Your task to perform on an android device: set the timer Image 0: 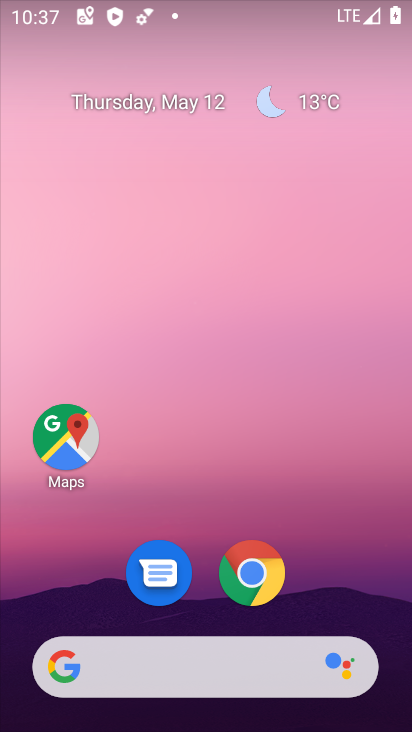
Step 0: drag from (223, 618) to (99, 3)
Your task to perform on an android device: set the timer Image 1: 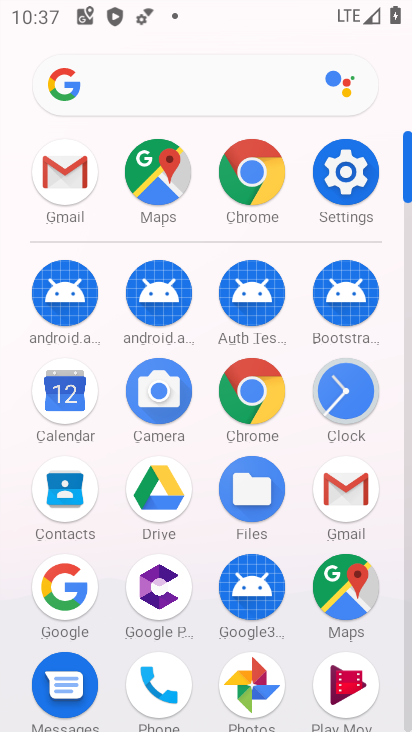
Step 1: click (336, 396)
Your task to perform on an android device: set the timer Image 2: 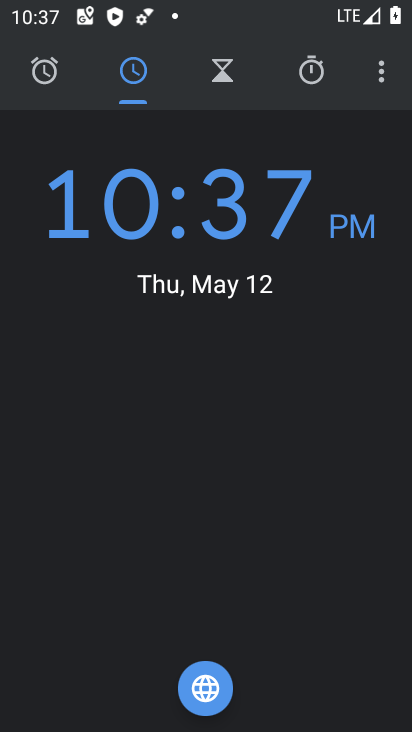
Step 2: click (239, 72)
Your task to perform on an android device: set the timer Image 3: 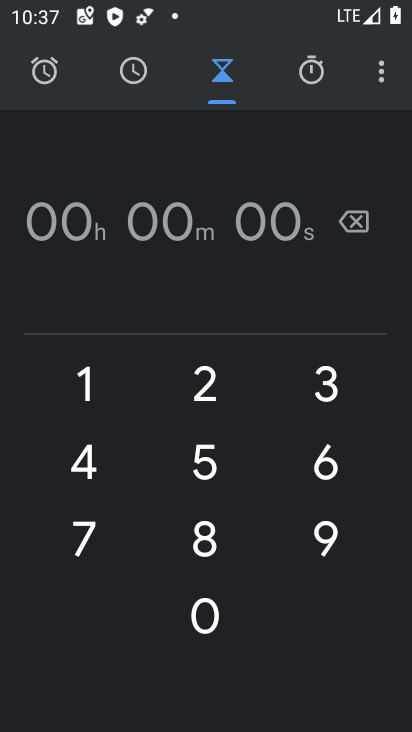
Step 3: click (226, 364)
Your task to perform on an android device: set the timer Image 4: 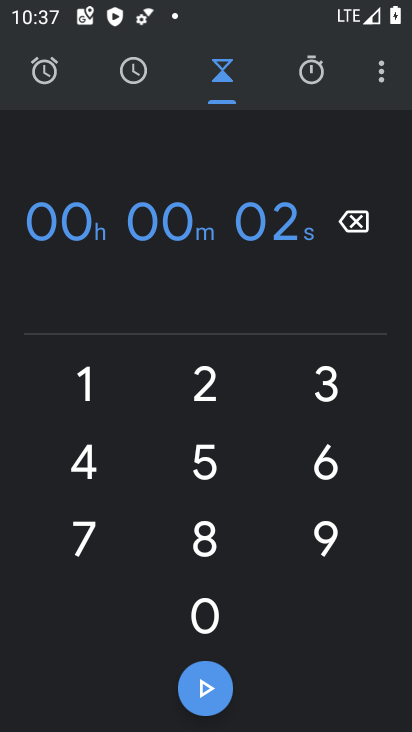
Step 4: click (201, 684)
Your task to perform on an android device: set the timer Image 5: 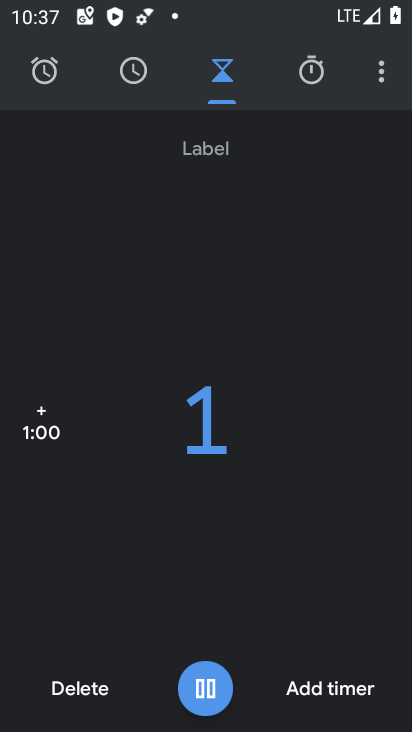
Step 5: task complete